Your task to perform on an android device: Open Reddit.com Image 0: 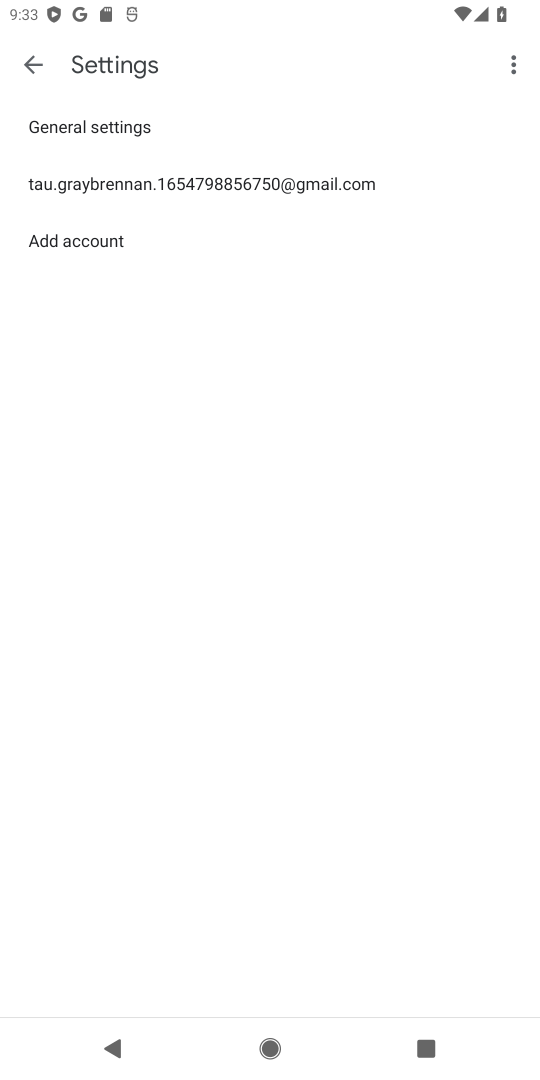
Step 0: press home button
Your task to perform on an android device: Open Reddit.com Image 1: 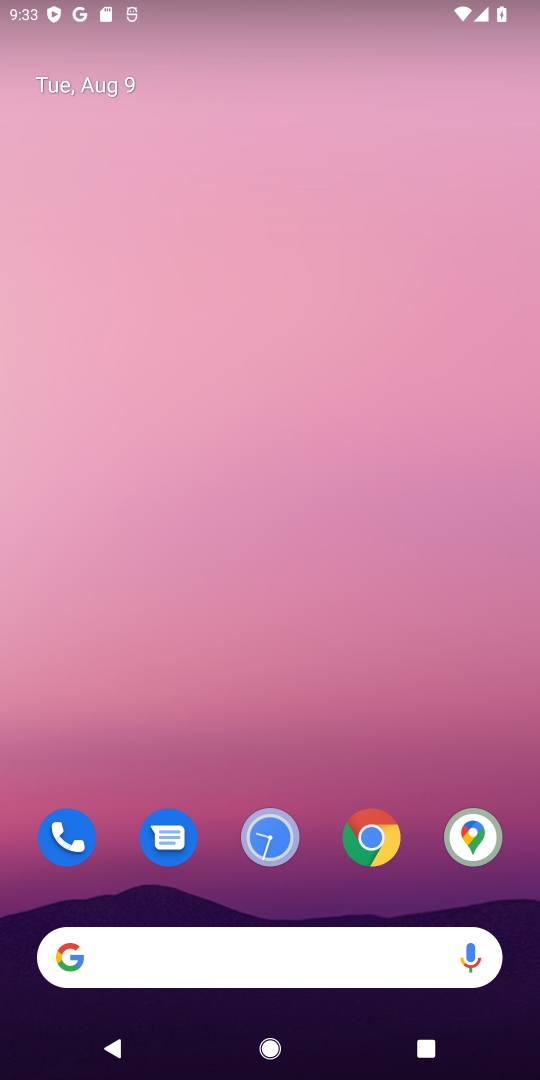
Step 1: click (374, 833)
Your task to perform on an android device: Open Reddit.com Image 2: 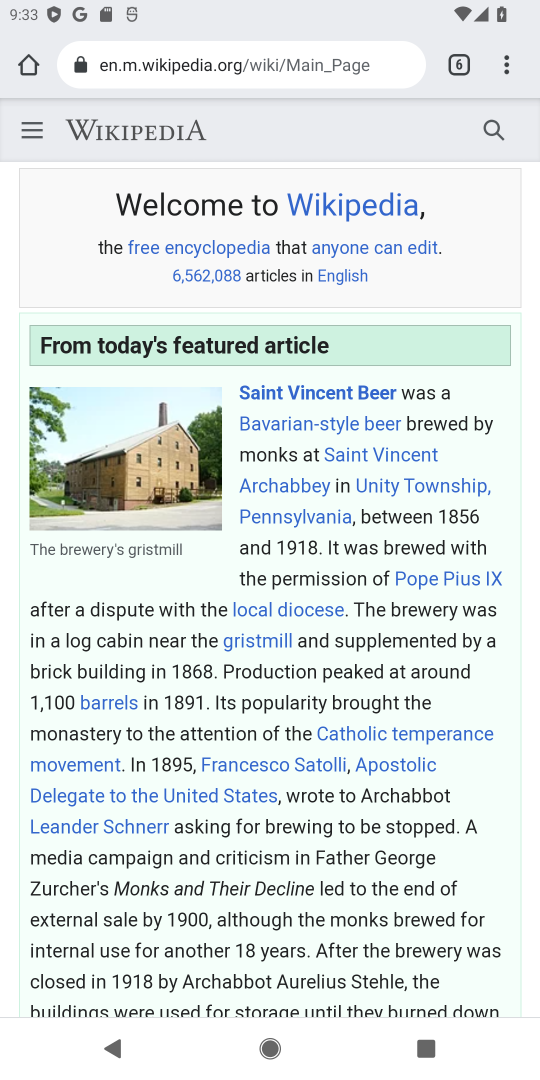
Step 2: click (508, 73)
Your task to perform on an android device: Open Reddit.com Image 3: 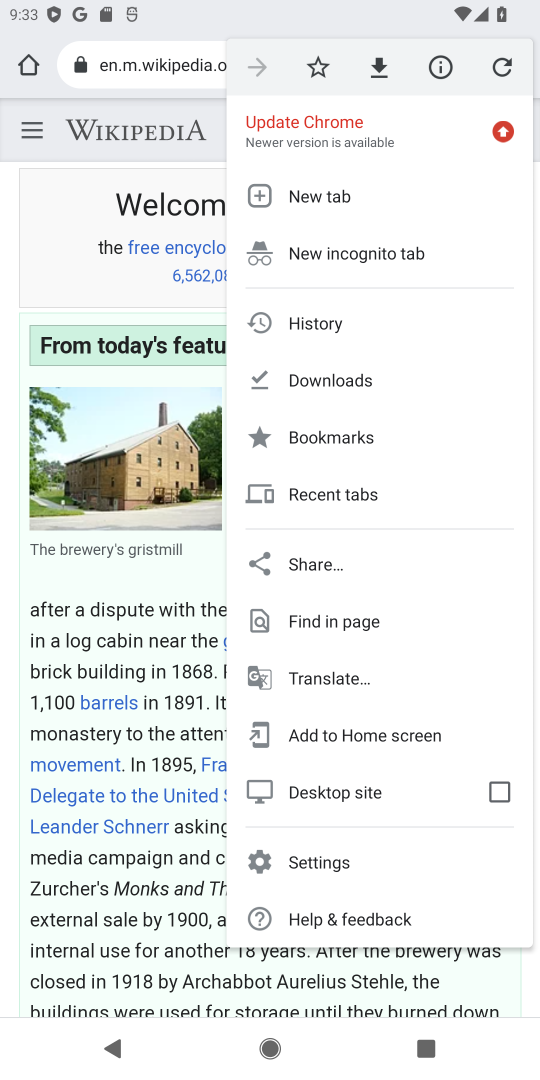
Step 3: click (329, 195)
Your task to perform on an android device: Open Reddit.com Image 4: 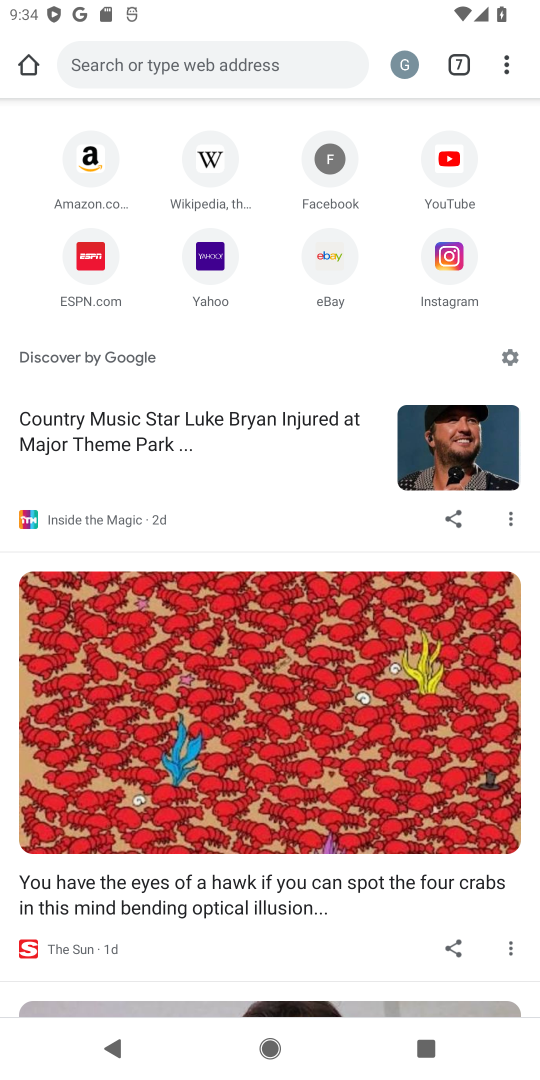
Step 4: click (202, 59)
Your task to perform on an android device: Open Reddit.com Image 5: 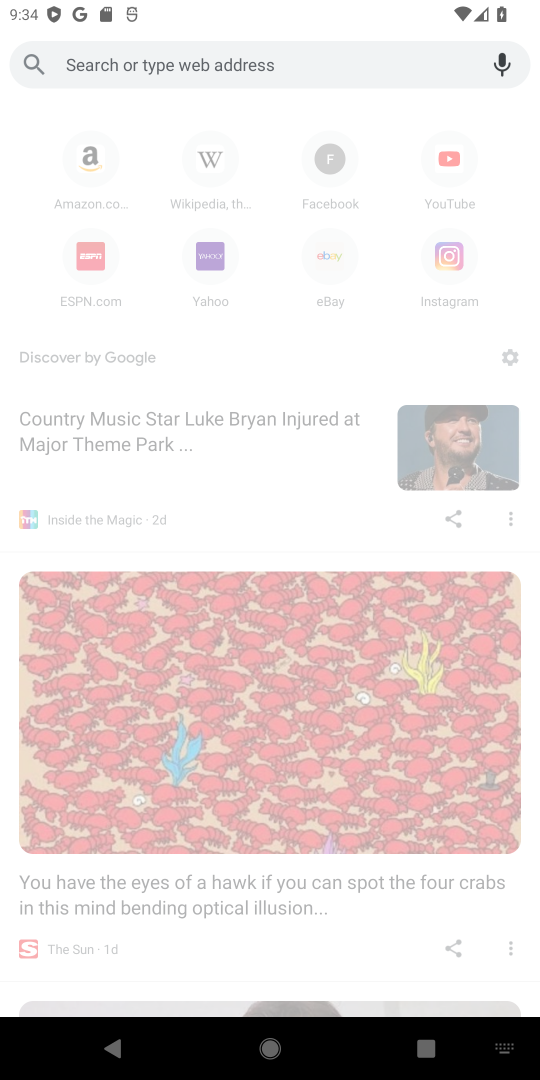
Step 5: type "Reddit.com"
Your task to perform on an android device: Open Reddit.com Image 6: 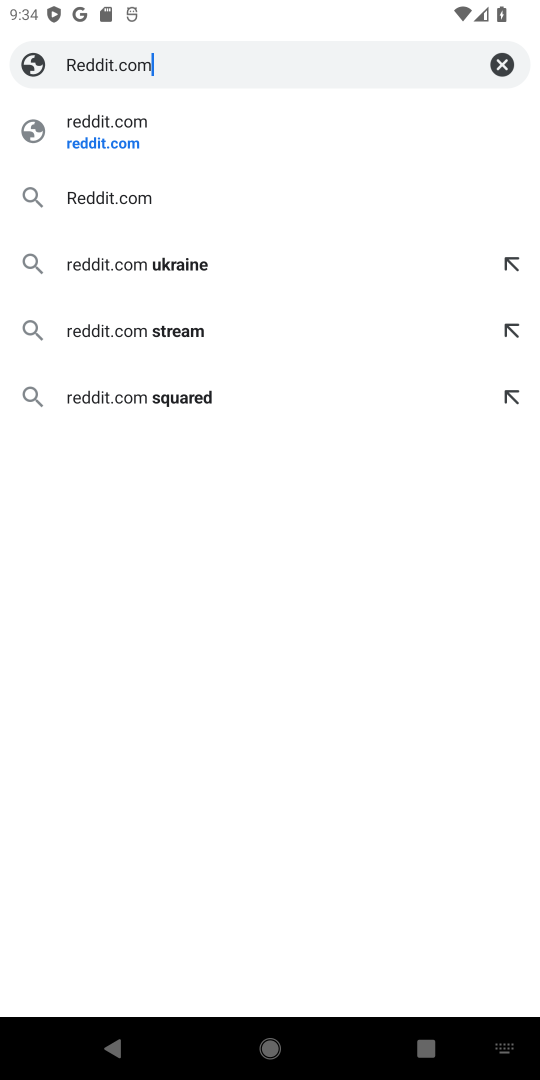
Step 6: click (112, 122)
Your task to perform on an android device: Open Reddit.com Image 7: 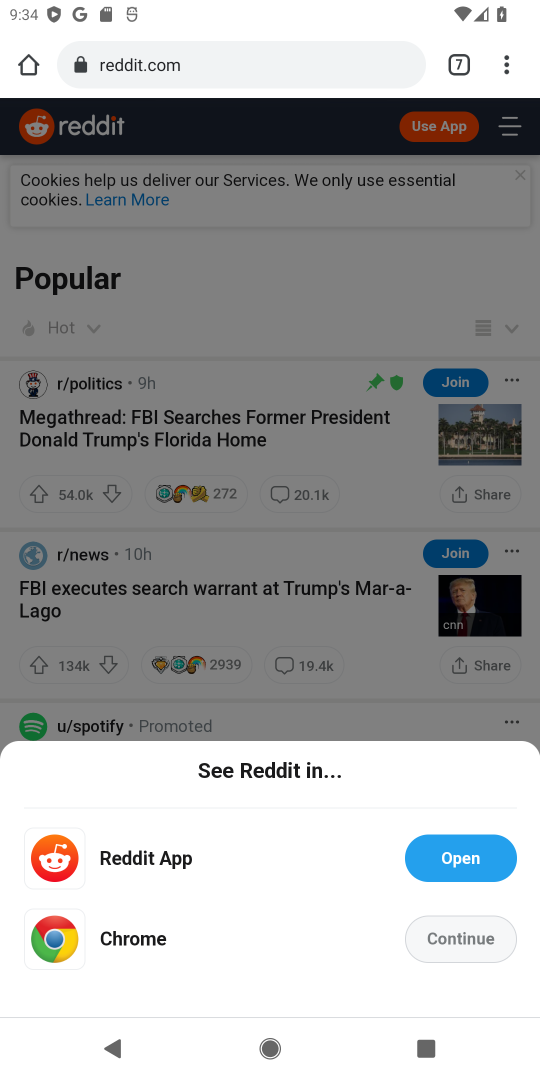
Step 7: task complete